Your task to perform on an android device: Open Yahoo.com Image 0: 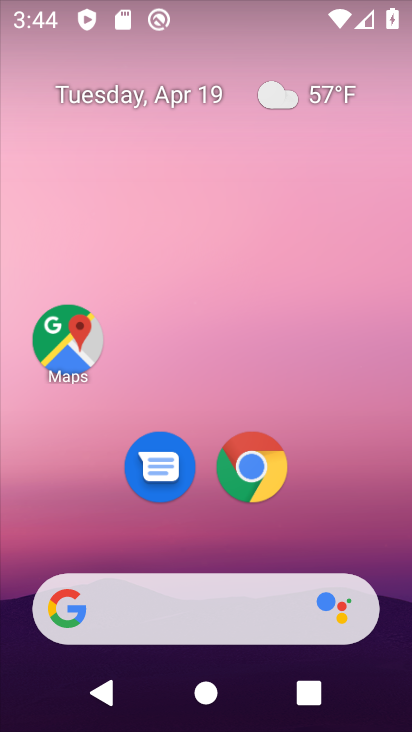
Step 0: click (236, 478)
Your task to perform on an android device: Open Yahoo.com Image 1: 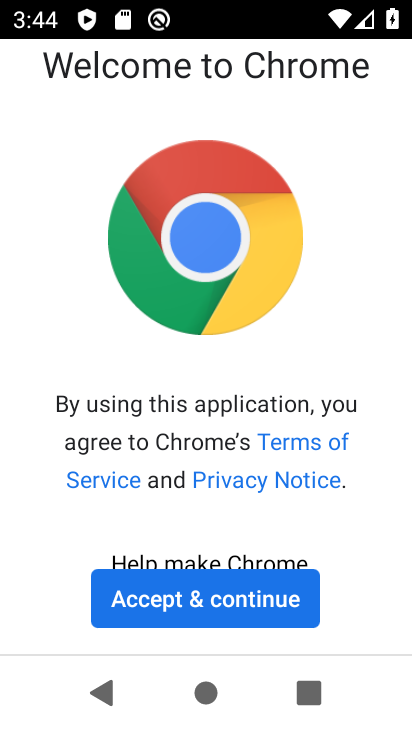
Step 1: click (187, 614)
Your task to perform on an android device: Open Yahoo.com Image 2: 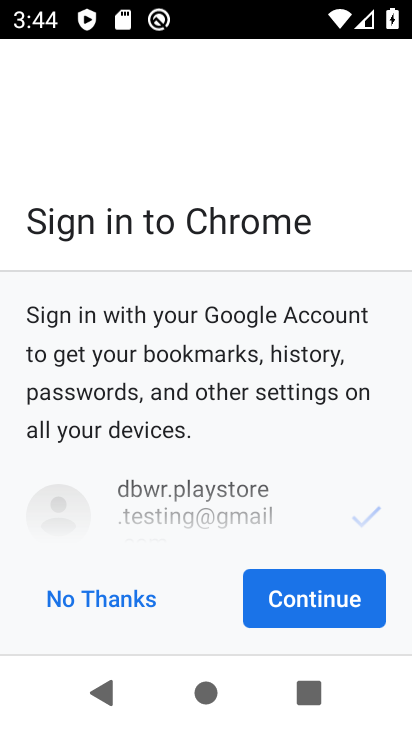
Step 2: click (270, 595)
Your task to perform on an android device: Open Yahoo.com Image 3: 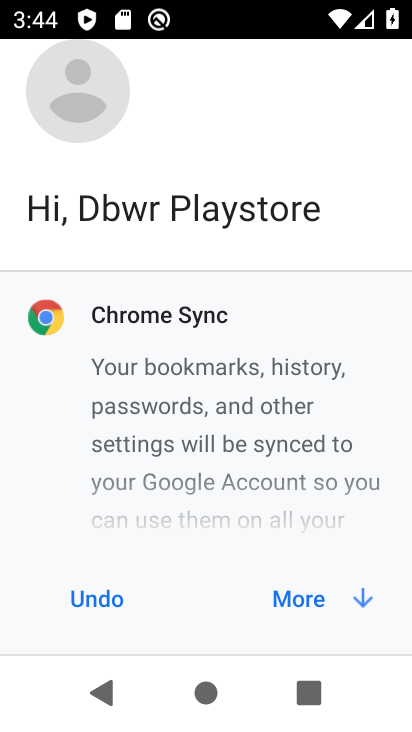
Step 3: click (270, 595)
Your task to perform on an android device: Open Yahoo.com Image 4: 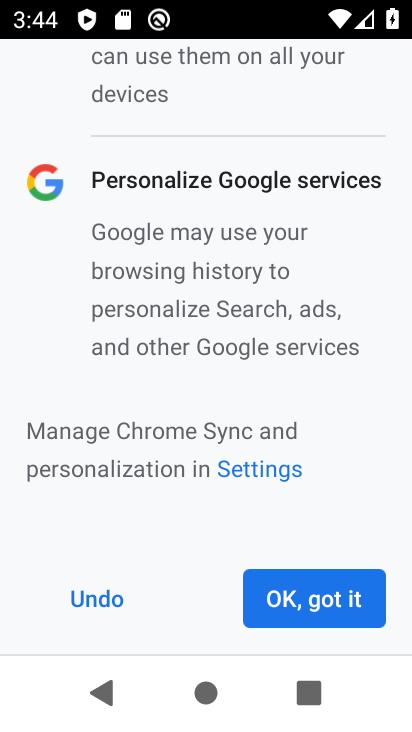
Step 4: click (296, 592)
Your task to perform on an android device: Open Yahoo.com Image 5: 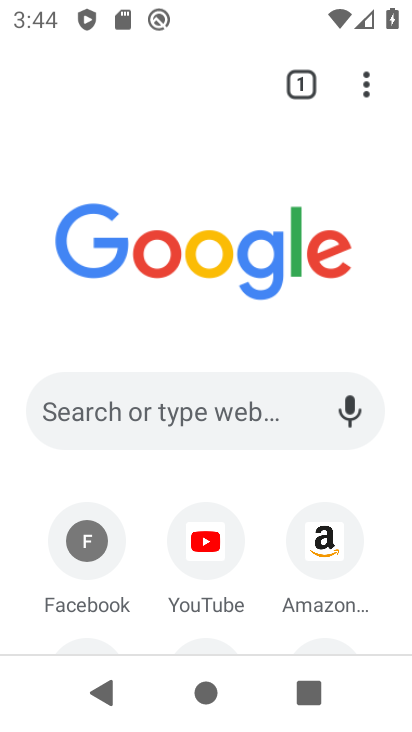
Step 5: drag from (220, 588) to (213, 450)
Your task to perform on an android device: Open Yahoo.com Image 6: 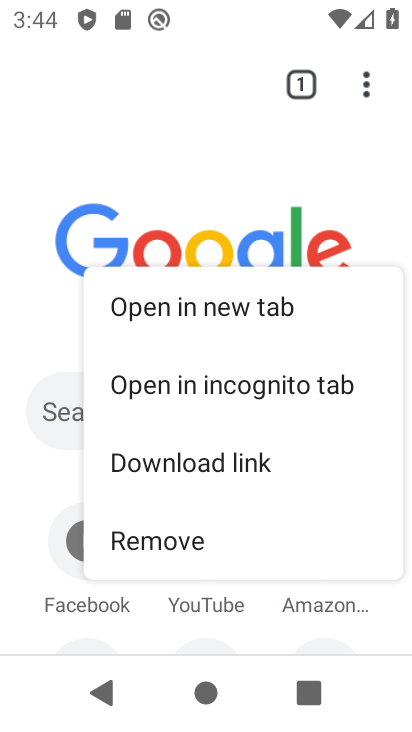
Step 6: click (61, 341)
Your task to perform on an android device: Open Yahoo.com Image 7: 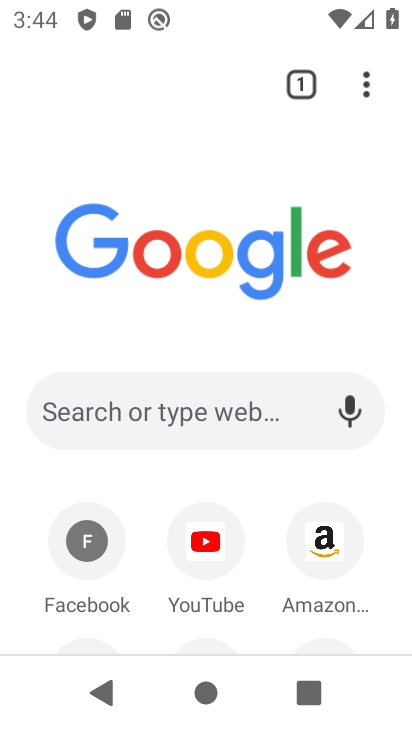
Step 7: click (61, 341)
Your task to perform on an android device: Open Yahoo.com Image 8: 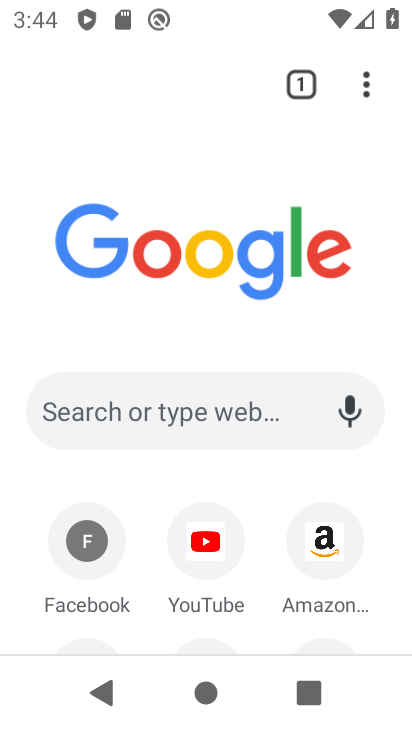
Step 8: drag from (242, 486) to (237, 219)
Your task to perform on an android device: Open Yahoo.com Image 9: 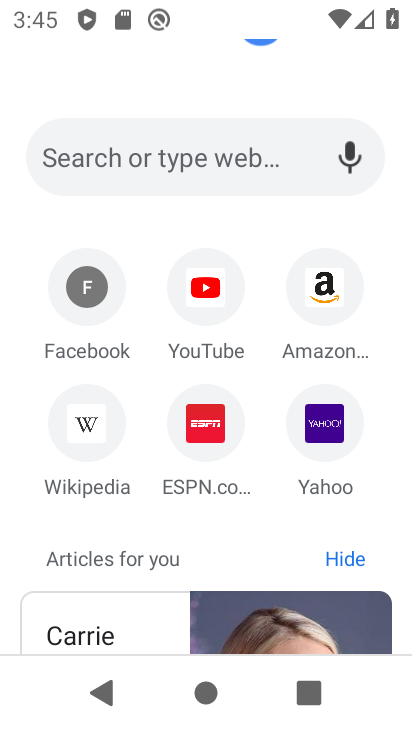
Step 9: click (307, 419)
Your task to perform on an android device: Open Yahoo.com Image 10: 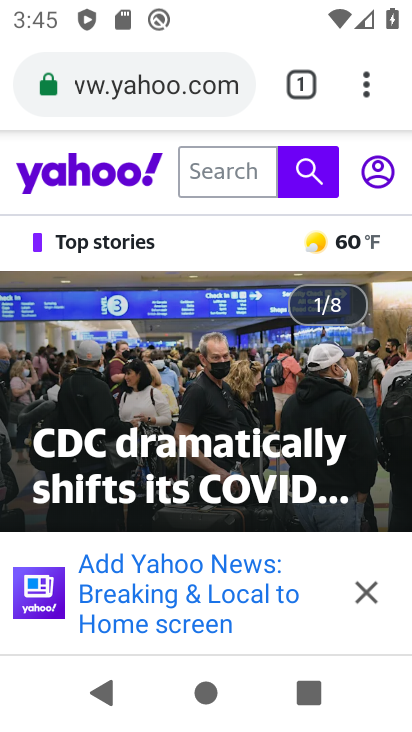
Step 10: task complete